Your task to perform on an android device: check storage Image 0: 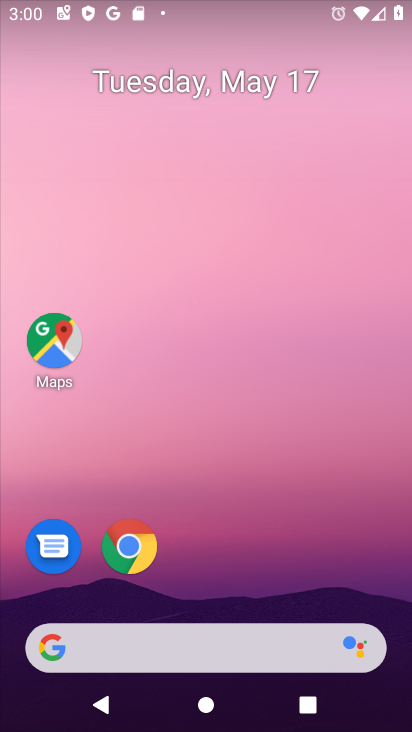
Step 0: drag from (395, 651) to (384, 191)
Your task to perform on an android device: check storage Image 1: 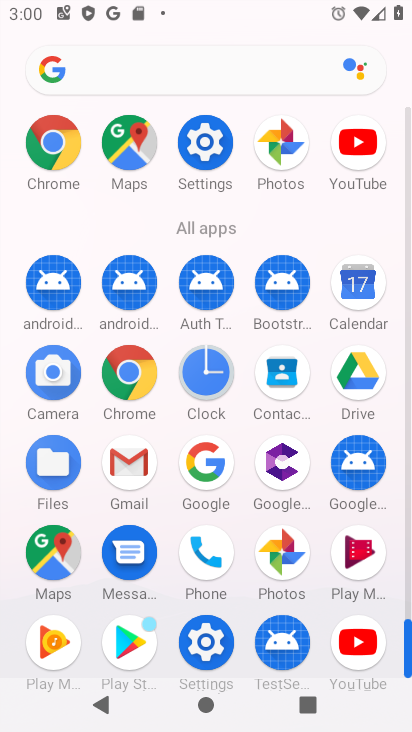
Step 1: click (211, 149)
Your task to perform on an android device: check storage Image 2: 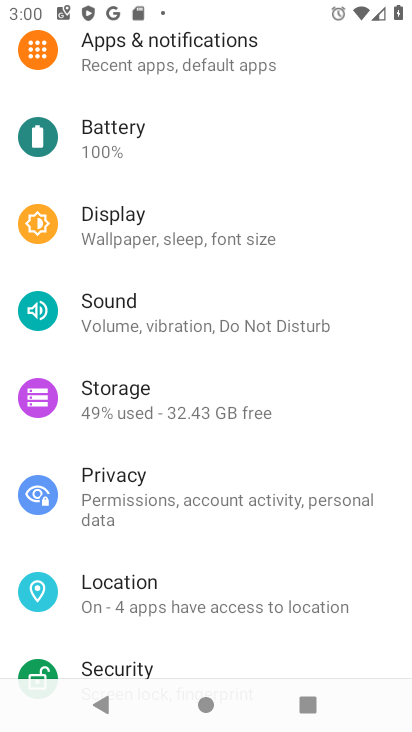
Step 2: click (124, 397)
Your task to perform on an android device: check storage Image 3: 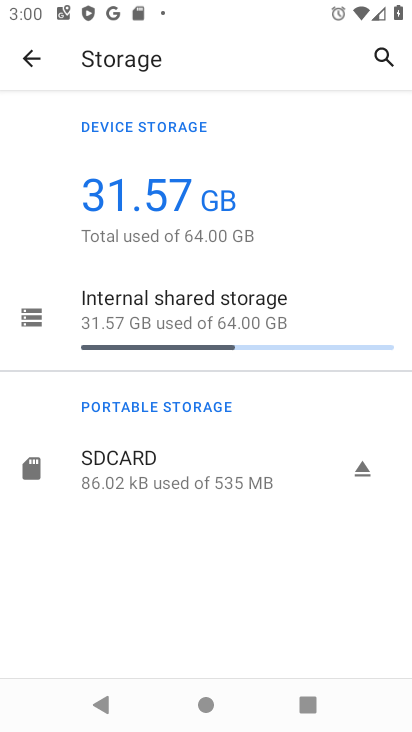
Step 3: task complete